Your task to perform on an android device: Open battery settings Image 0: 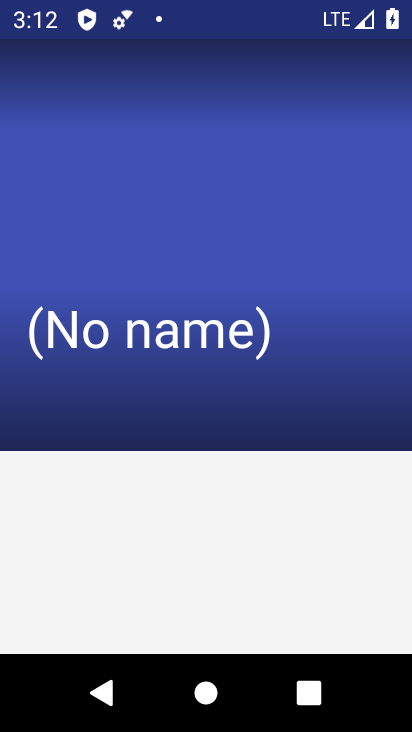
Step 0: drag from (184, 575) to (238, 189)
Your task to perform on an android device: Open battery settings Image 1: 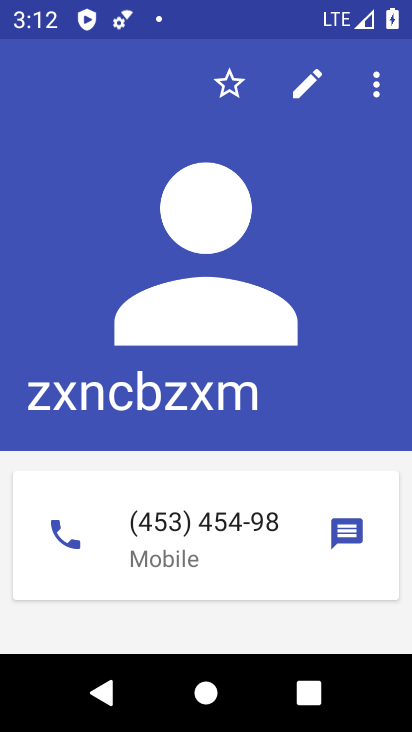
Step 1: press home button
Your task to perform on an android device: Open battery settings Image 2: 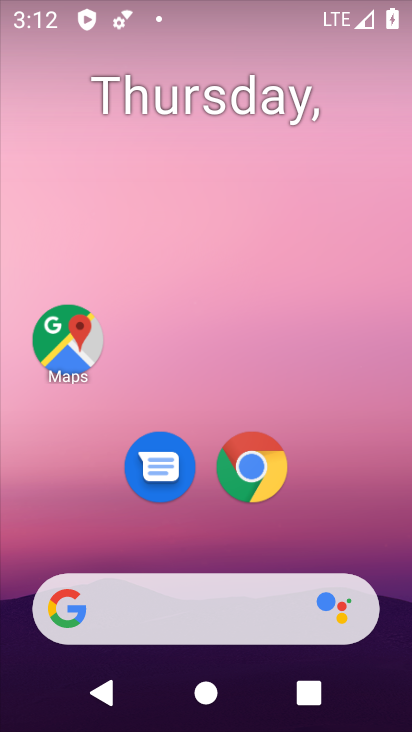
Step 2: drag from (235, 603) to (237, 31)
Your task to perform on an android device: Open battery settings Image 3: 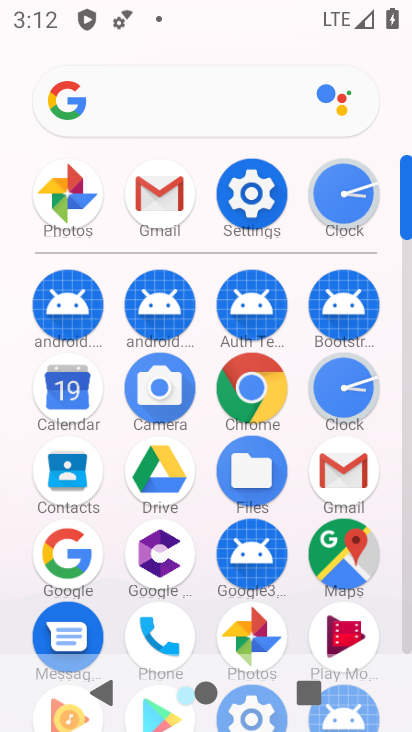
Step 3: click (266, 239)
Your task to perform on an android device: Open battery settings Image 4: 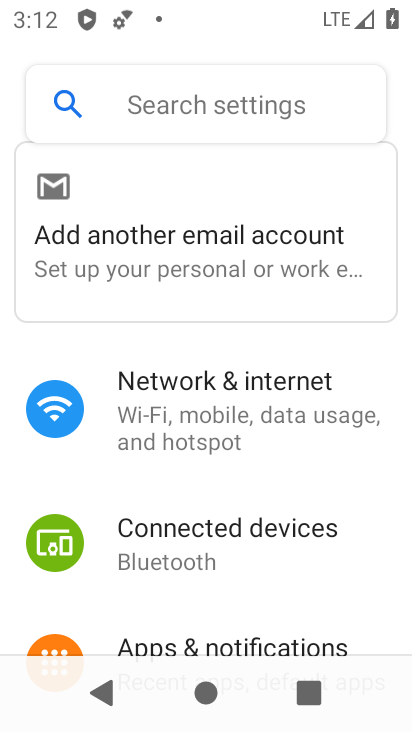
Step 4: drag from (202, 564) to (219, 173)
Your task to perform on an android device: Open battery settings Image 5: 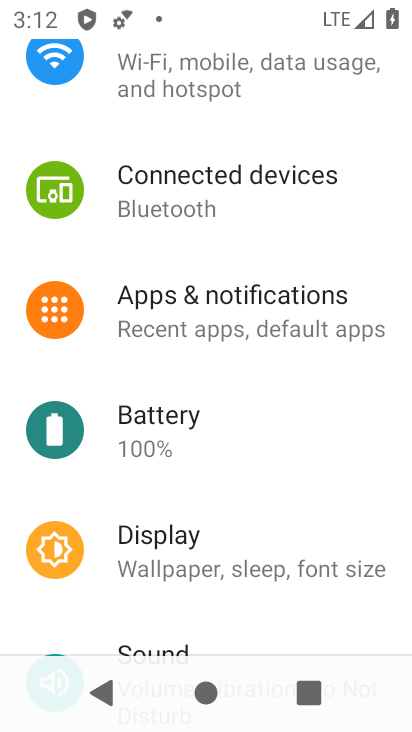
Step 5: click (170, 424)
Your task to perform on an android device: Open battery settings Image 6: 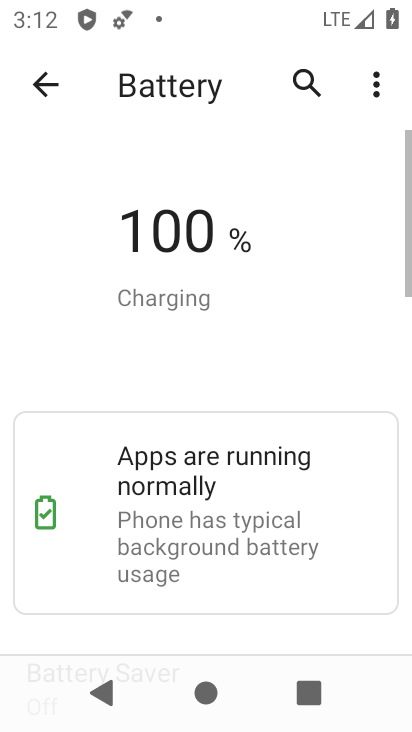
Step 6: task complete